Your task to perform on an android device: stop showing notifications on the lock screen Image 0: 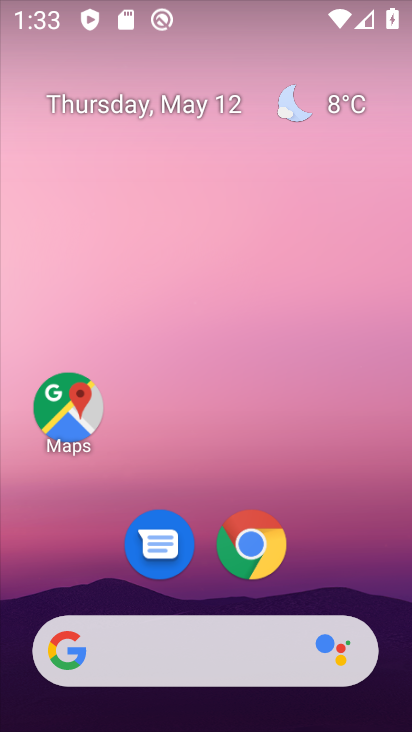
Step 0: drag from (88, 604) to (202, 177)
Your task to perform on an android device: stop showing notifications on the lock screen Image 1: 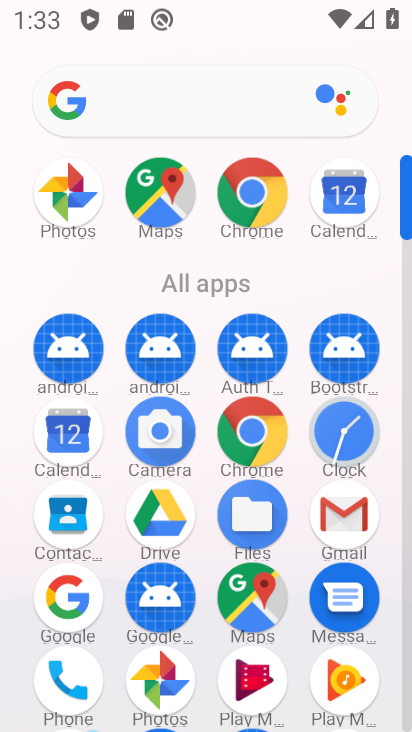
Step 1: drag from (135, 653) to (229, 352)
Your task to perform on an android device: stop showing notifications on the lock screen Image 2: 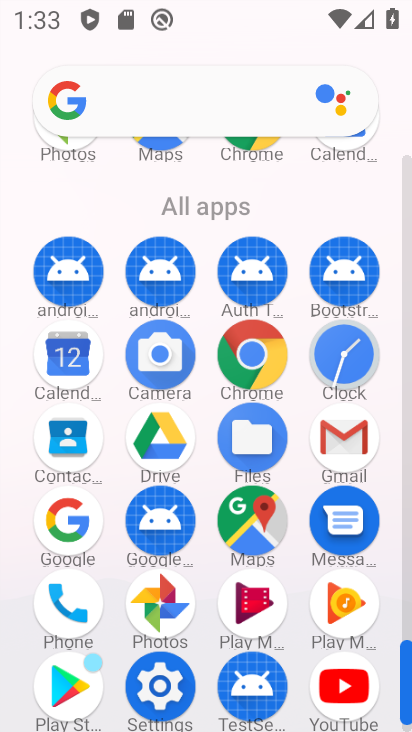
Step 2: click (169, 681)
Your task to perform on an android device: stop showing notifications on the lock screen Image 3: 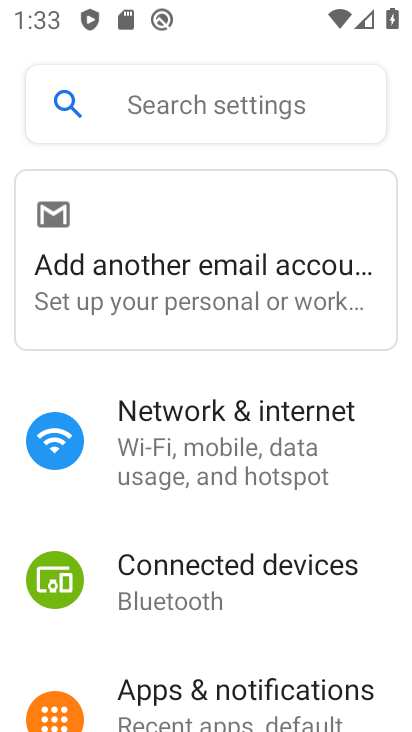
Step 3: click (195, 709)
Your task to perform on an android device: stop showing notifications on the lock screen Image 4: 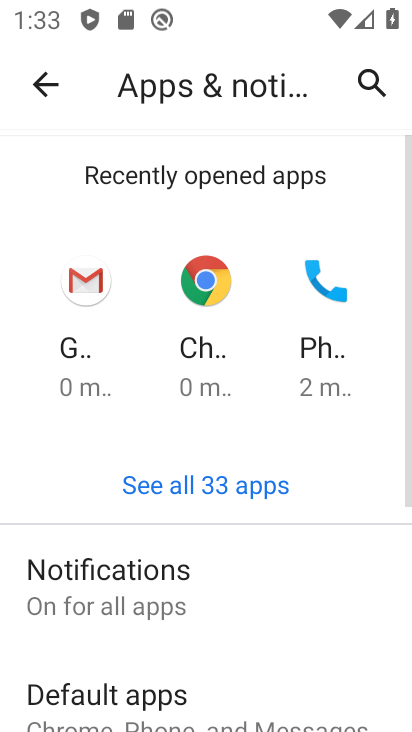
Step 4: drag from (221, 707) to (285, 455)
Your task to perform on an android device: stop showing notifications on the lock screen Image 5: 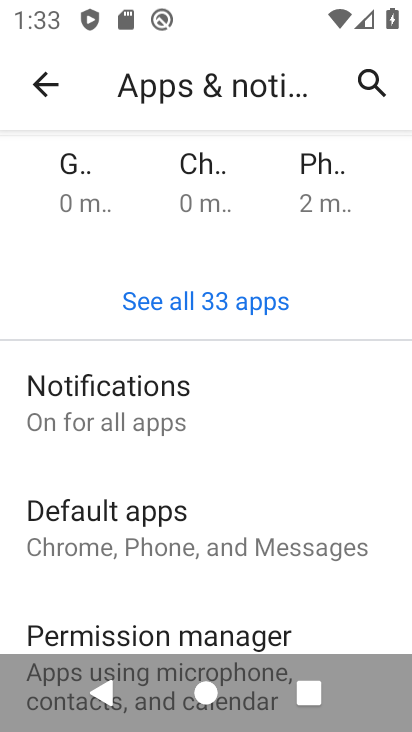
Step 5: click (254, 408)
Your task to perform on an android device: stop showing notifications on the lock screen Image 6: 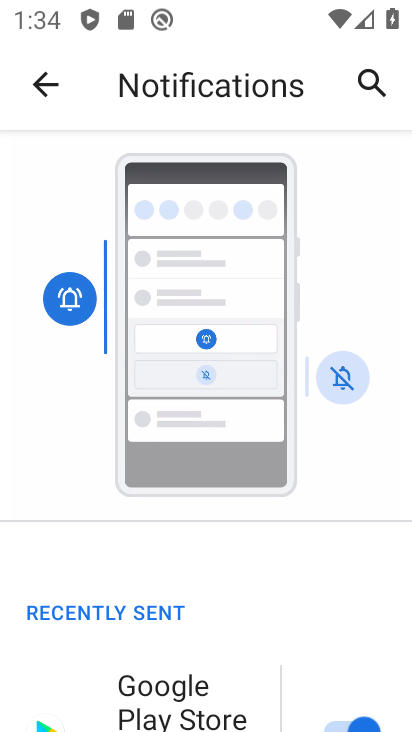
Step 6: drag from (211, 646) to (379, 99)
Your task to perform on an android device: stop showing notifications on the lock screen Image 7: 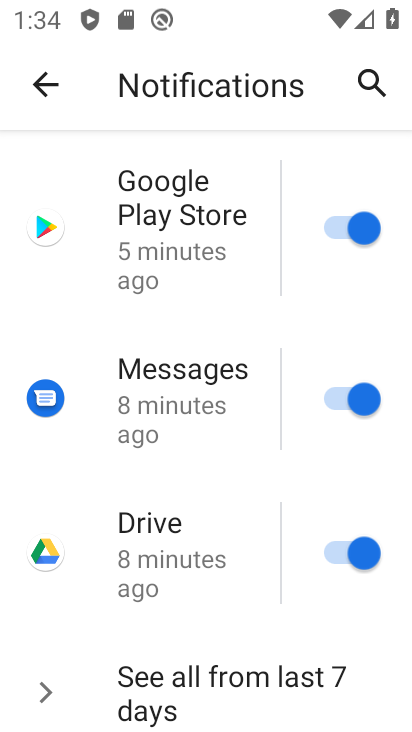
Step 7: drag from (189, 653) to (315, 236)
Your task to perform on an android device: stop showing notifications on the lock screen Image 8: 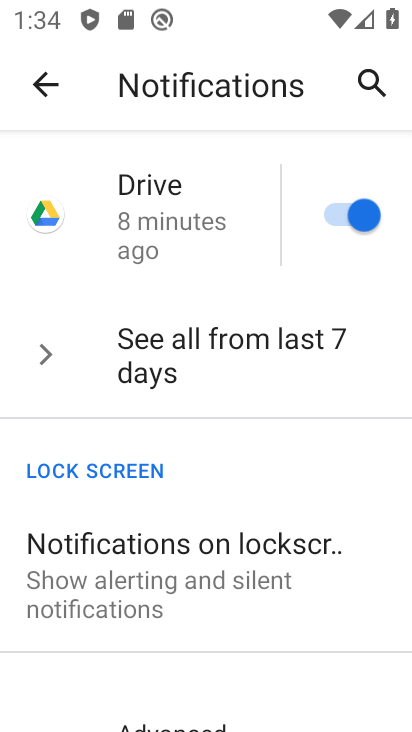
Step 8: drag from (178, 675) to (272, 405)
Your task to perform on an android device: stop showing notifications on the lock screen Image 9: 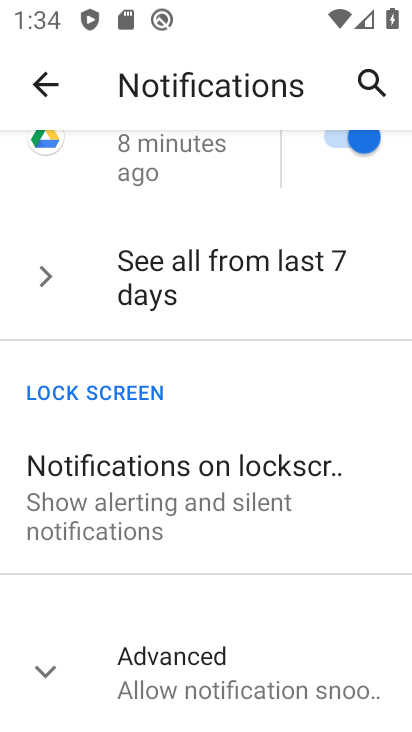
Step 9: drag from (198, 637) to (262, 390)
Your task to perform on an android device: stop showing notifications on the lock screen Image 10: 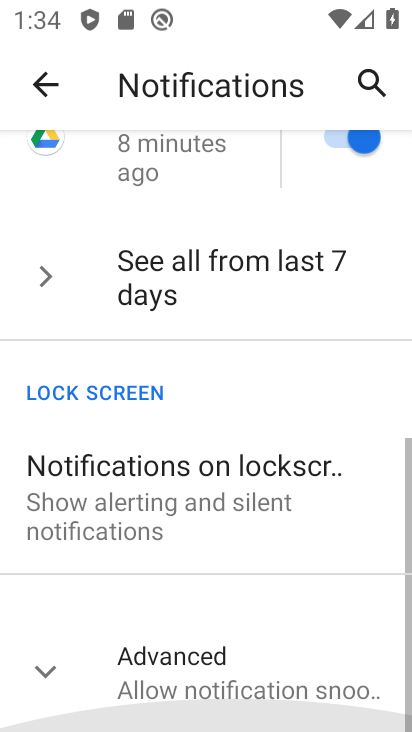
Step 10: click (221, 486)
Your task to perform on an android device: stop showing notifications on the lock screen Image 11: 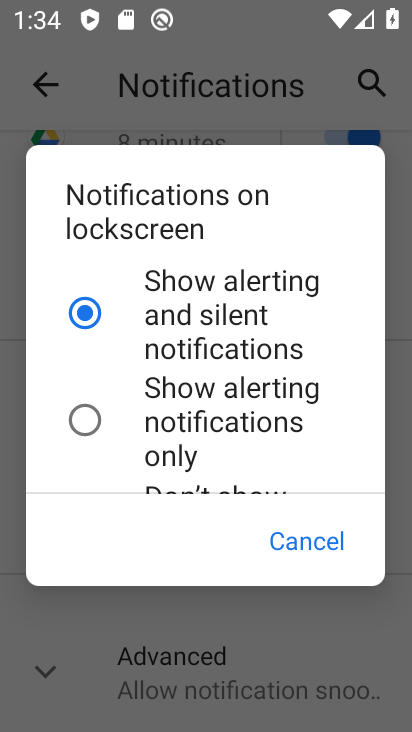
Step 11: drag from (192, 455) to (278, 242)
Your task to perform on an android device: stop showing notifications on the lock screen Image 12: 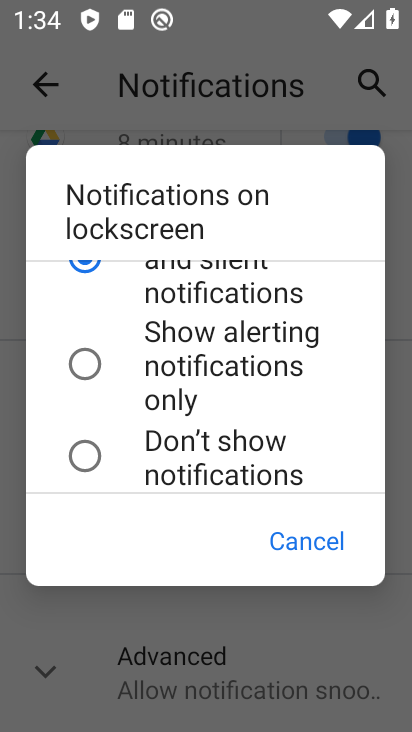
Step 12: click (179, 451)
Your task to perform on an android device: stop showing notifications on the lock screen Image 13: 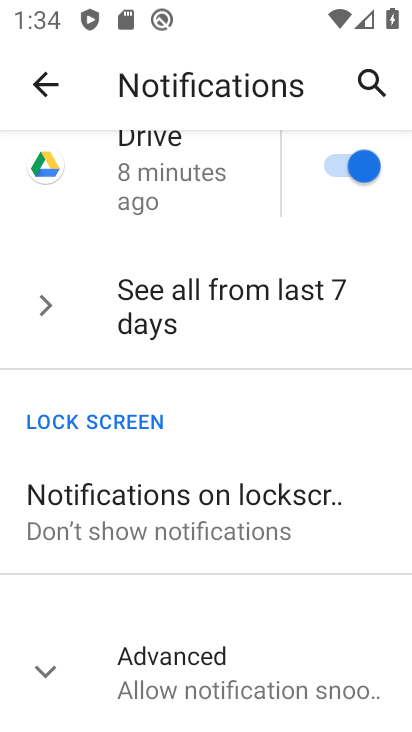
Step 13: task complete